Your task to perform on an android device: Open battery settings Image 0: 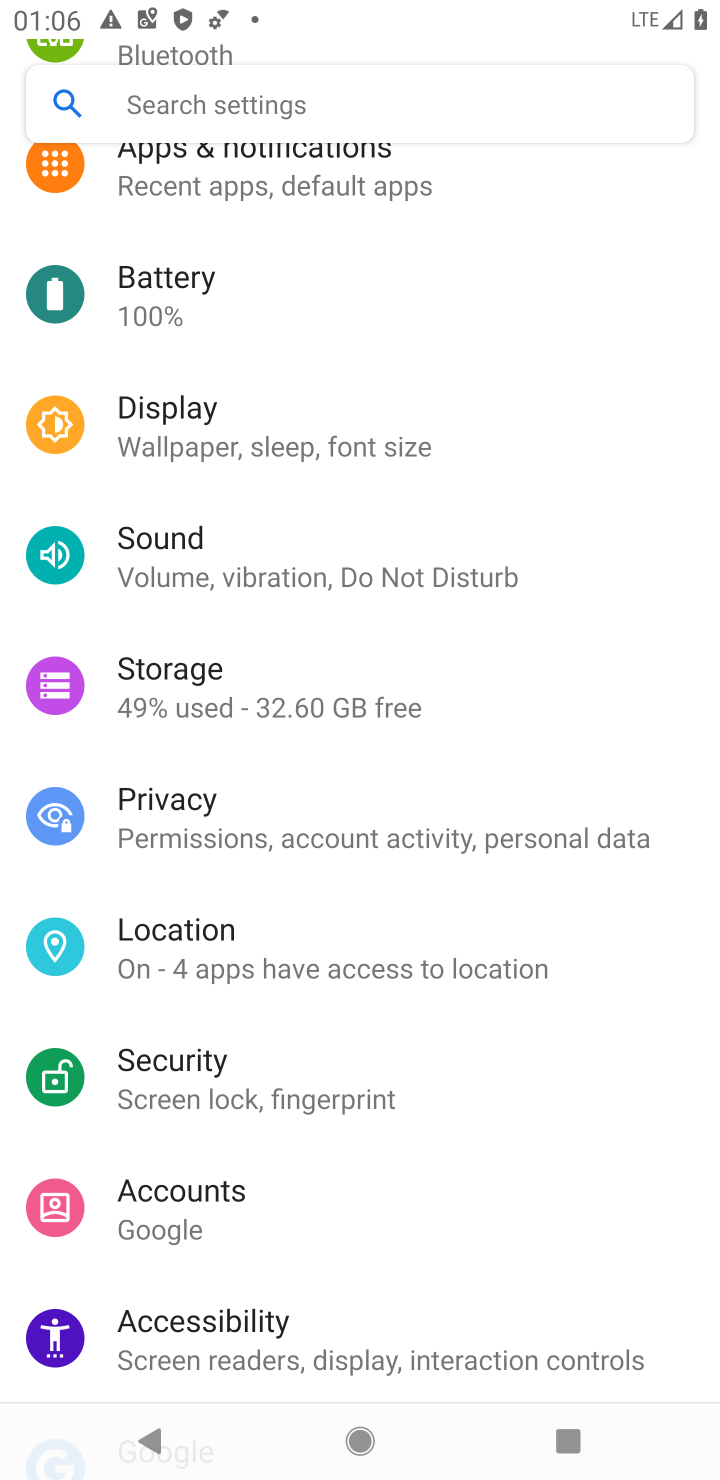
Step 0: click (175, 288)
Your task to perform on an android device: Open battery settings Image 1: 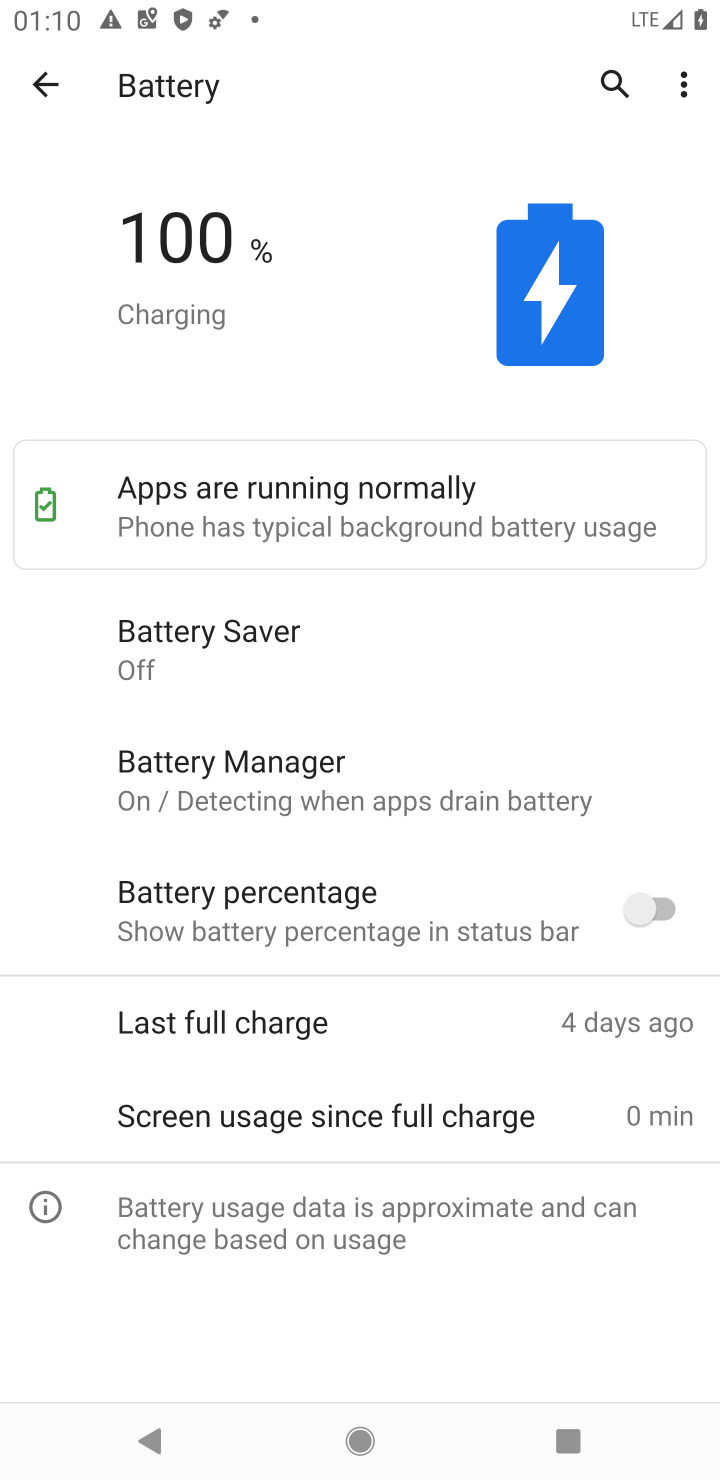
Step 1: task complete